Your task to perform on an android device: turn pop-ups on in chrome Image 0: 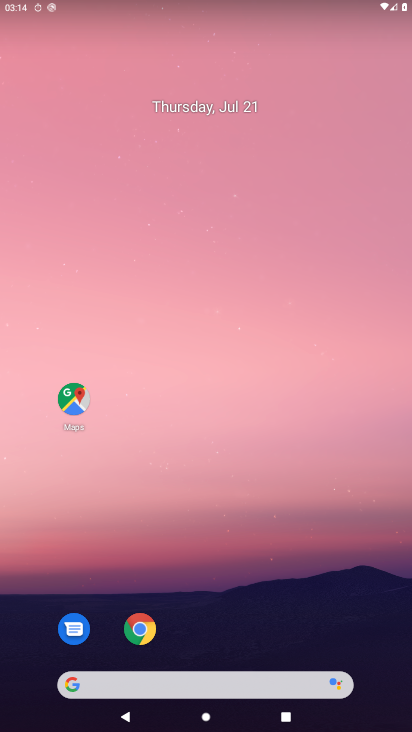
Step 0: click (133, 620)
Your task to perform on an android device: turn pop-ups on in chrome Image 1: 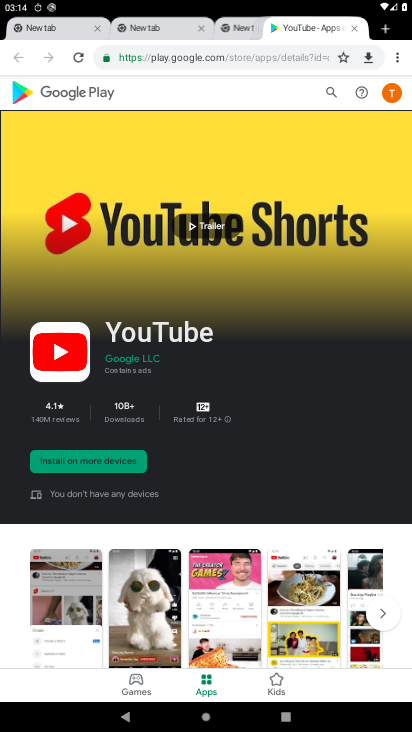
Step 1: click (399, 56)
Your task to perform on an android device: turn pop-ups on in chrome Image 2: 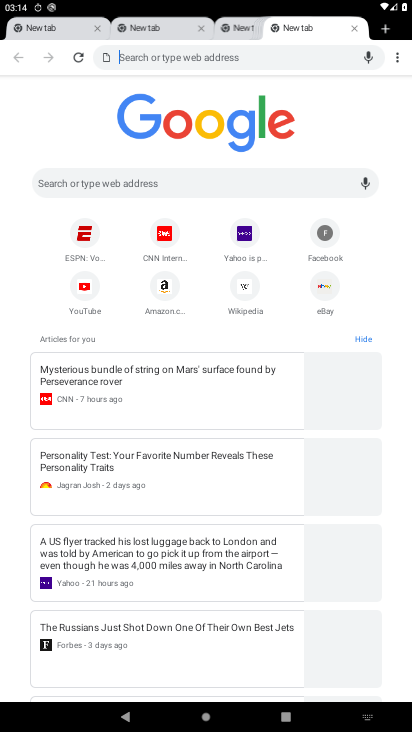
Step 2: click (394, 57)
Your task to perform on an android device: turn pop-ups on in chrome Image 3: 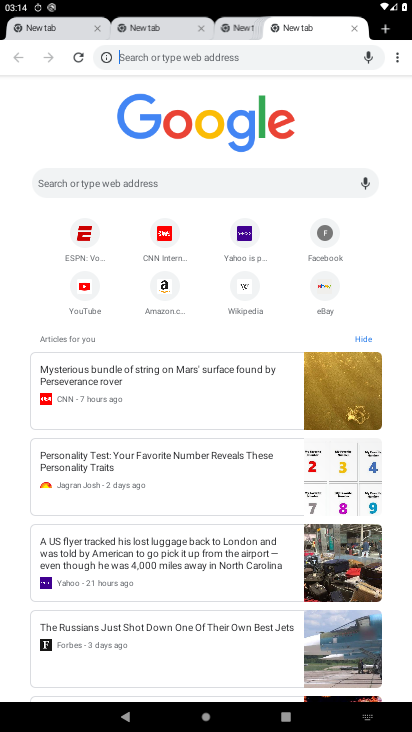
Step 3: click (395, 62)
Your task to perform on an android device: turn pop-ups on in chrome Image 4: 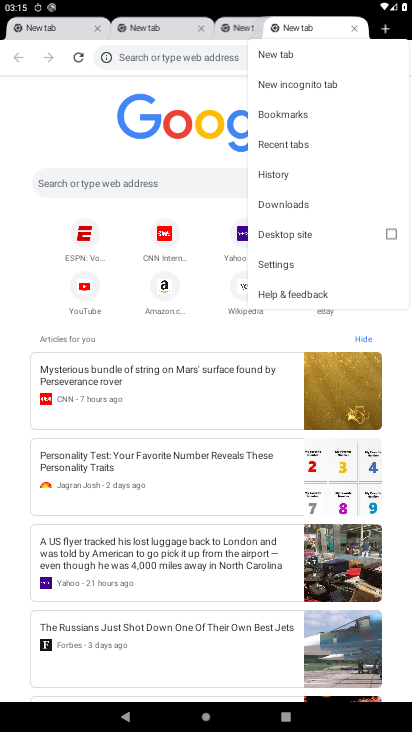
Step 4: click (283, 262)
Your task to perform on an android device: turn pop-ups on in chrome Image 5: 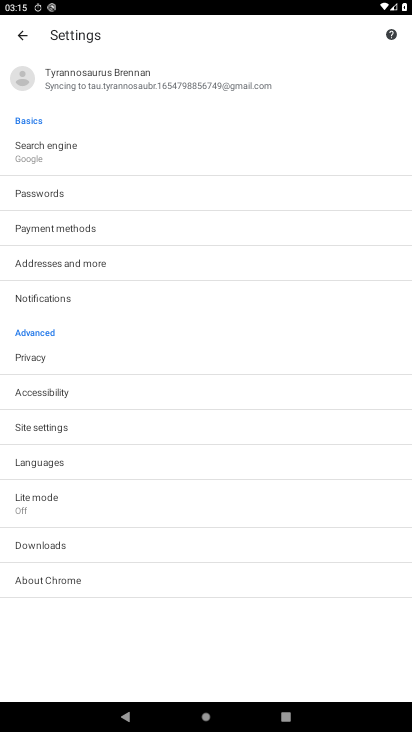
Step 5: click (44, 433)
Your task to perform on an android device: turn pop-ups on in chrome Image 6: 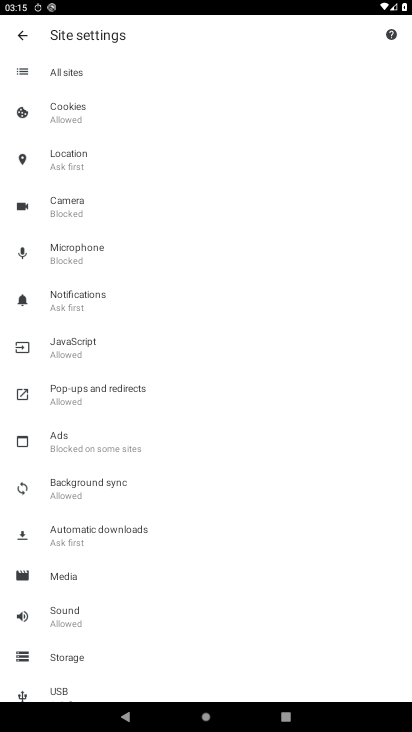
Step 6: click (88, 390)
Your task to perform on an android device: turn pop-ups on in chrome Image 7: 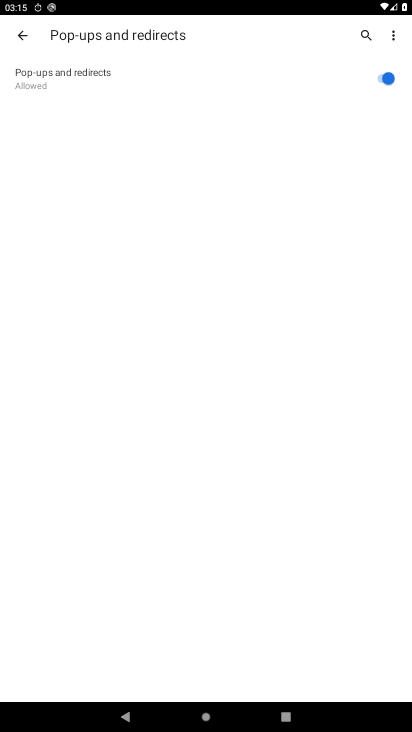
Step 7: task complete